Your task to perform on an android device: empty trash in google photos Image 0: 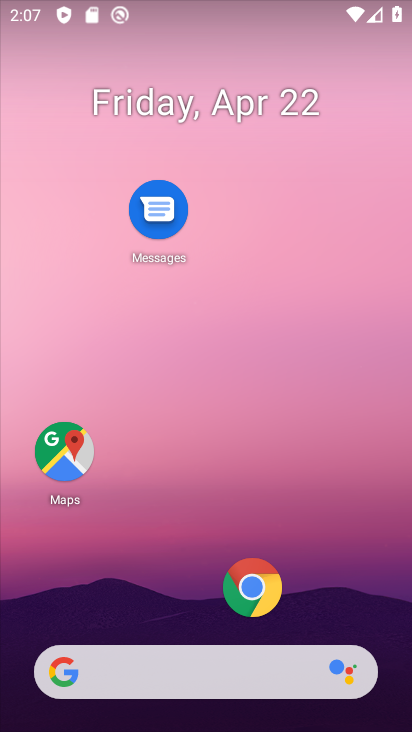
Step 0: drag from (183, 611) to (258, 242)
Your task to perform on an android device: empty trash in google photos Image 1: 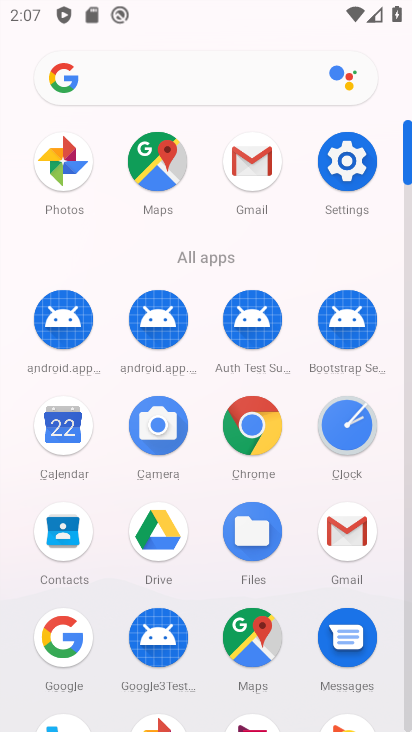
Step 1: click (254, 162)
Your task to perform on an android device: empty trash in google photos Image 2: 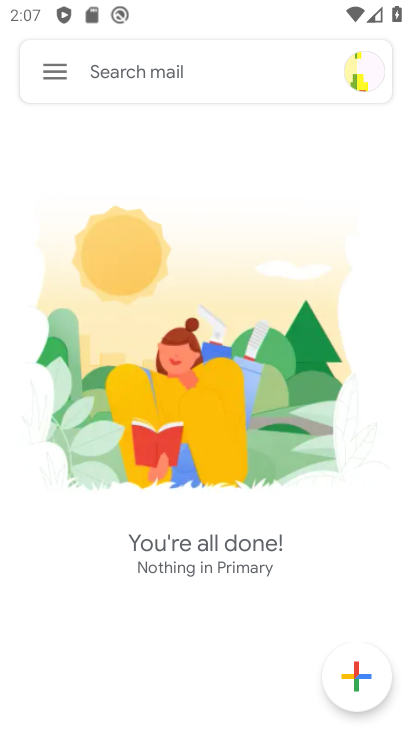
Step 2: click (58, 70)
Your task to perform on an android device: empty trash in google photos Image 3: 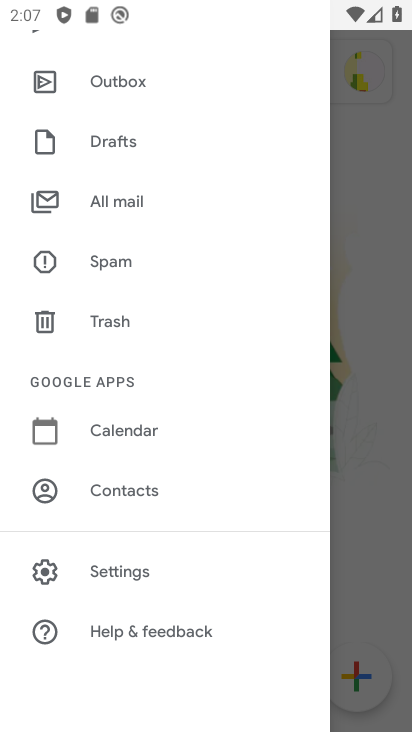
Step 3: click (122, 324)
Your task to perform on an android device: empty trash in google photos Image 4: 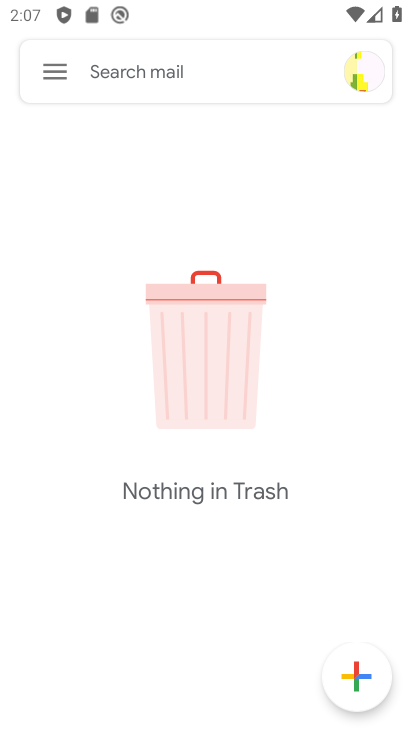
Step 4: task complete